Your task to perform on an android device: toggle airplane mode Image 0: 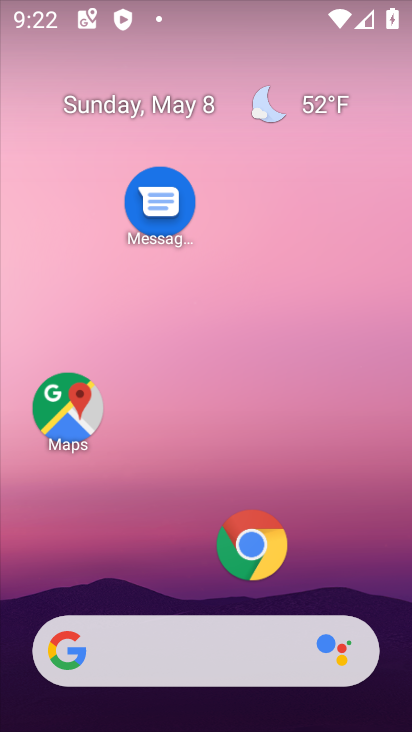
Step 0: drag from (219, 596) to (330, 11)
Your task to perform on an android device: toggle airplane mode Image 1: 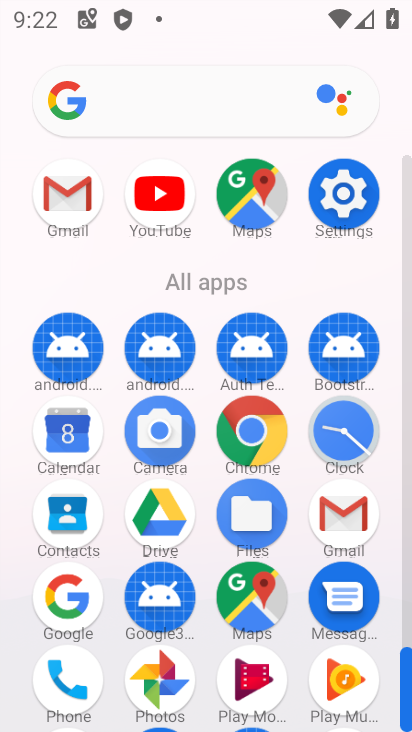
Step 1: click (344, 212)
Your task to perform on an android device: toggle airplane mode Image 2: 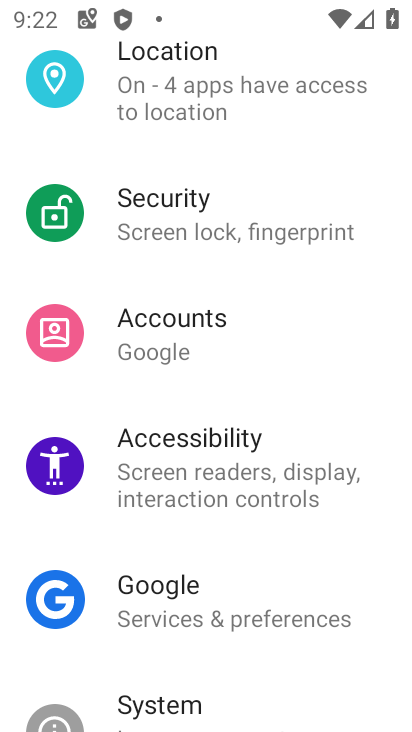
Step 2: drag from (275, 141) to (230, 724)
Your task to perform on an android device: toggle airplane mode Image 3: 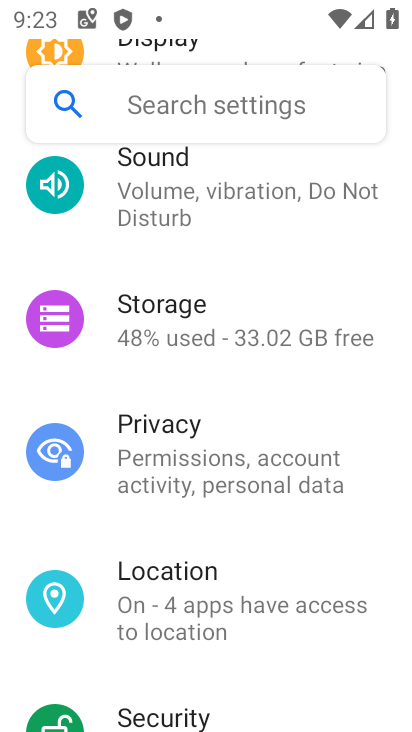
Step 3: drag from (192, 209) to (141, 718)
Your task to perform on an android device: toggle airplane mode Image 4: 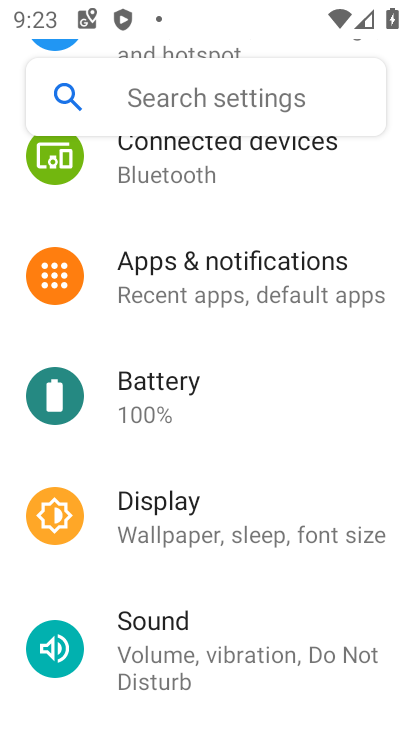
Step 4: drag from (164, 205) to (187, 725)
Your task to perform on an android device: toggle airplane mode Image 5: 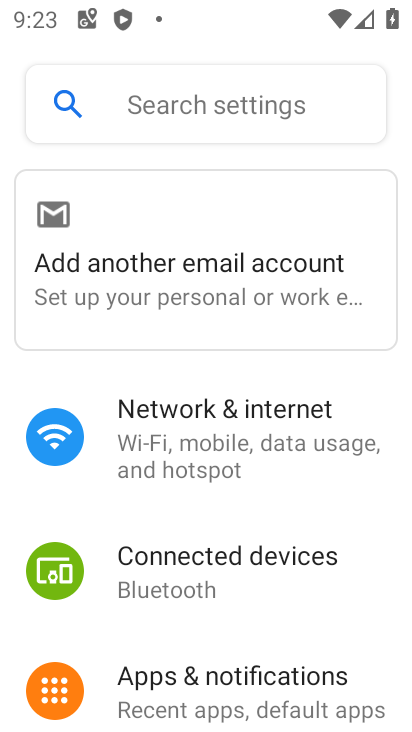
Step 5: click (185, 458)
Your task to perform on an android device: toggle airplane mode Image 6: 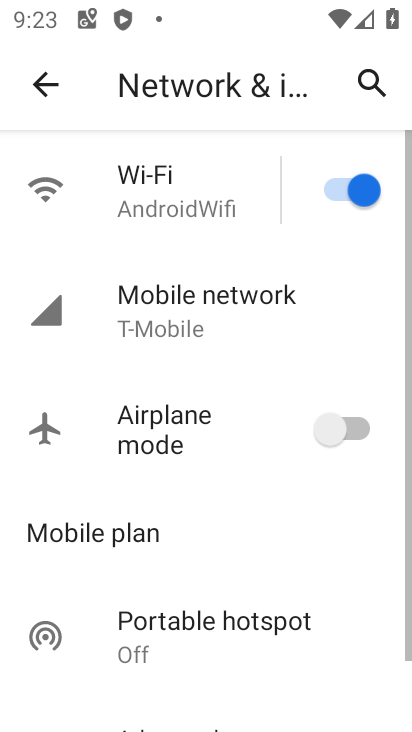
Step 6: click (176, 438)
Your task to perform on an android device: toggle airplane mode Image 7: 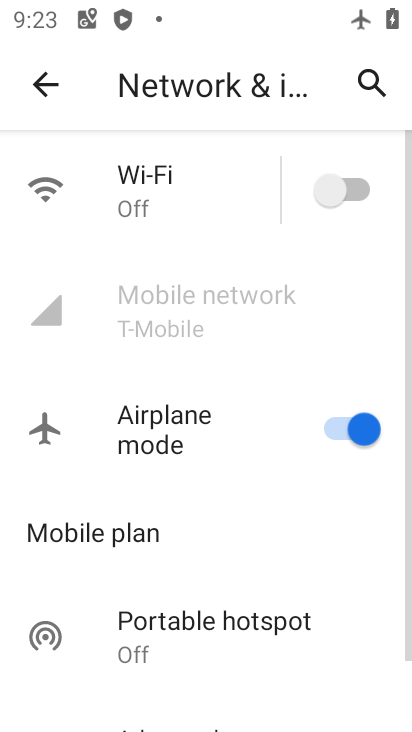
Step 7: task complete